Your task to perform on an android device: toggle javascript in the chrome app Image 0: 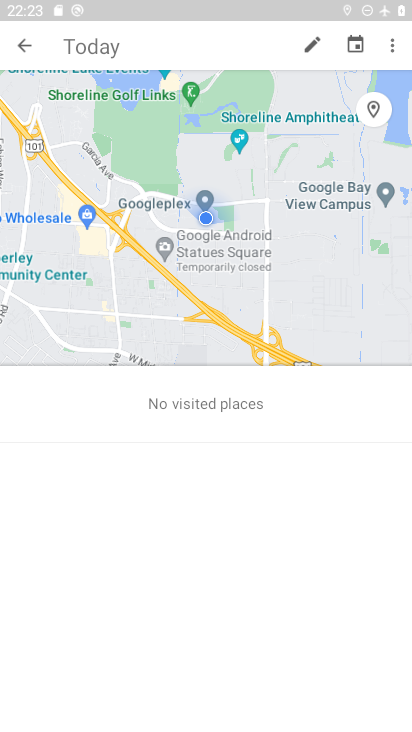
Step 0: press home button
Your task to perform on an android device: toggle javascript in the chrome app Image 1: 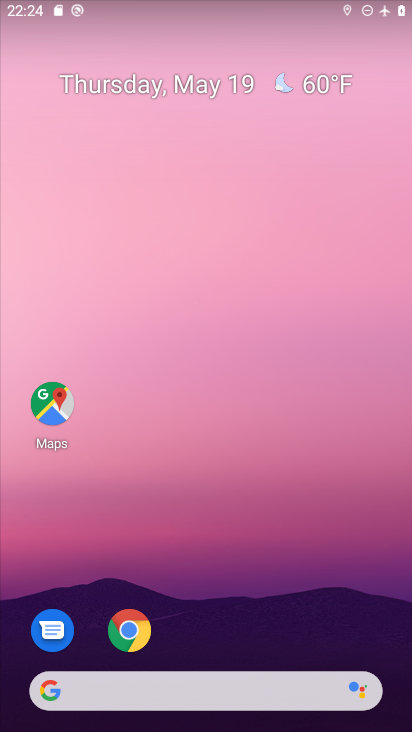
Step 1: click (136, 625)
Your task to perform on an android device: toggle javascript in the chrome app Image 2: 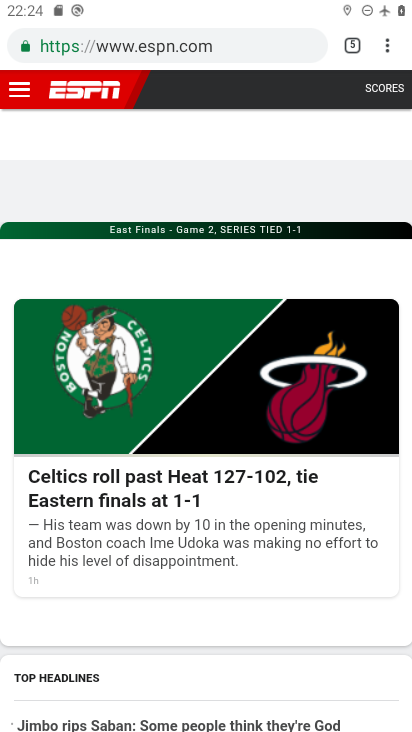
Step 2: click (388, 40)
Your task to perform on an android device: toggle javascript in the chrome app Image 3: 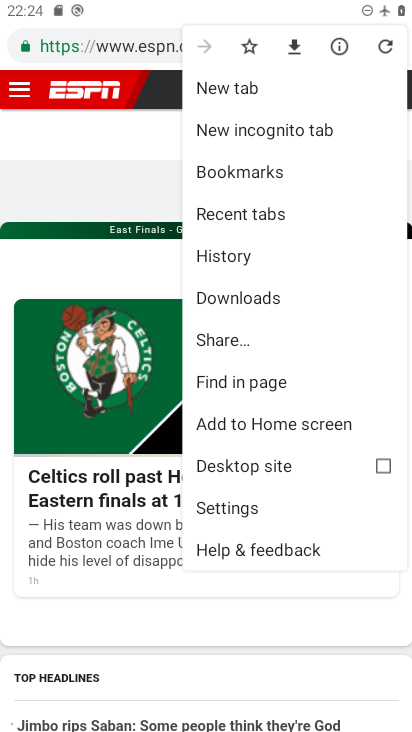
Step 3: click (233, 505)
Your task to perform on an android device: toggle javascript in the chrome app Image 4: 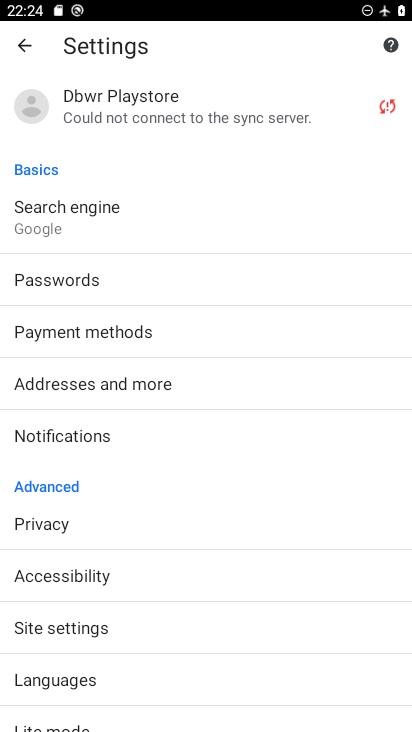
Step 4: drag from (233, 481) to (233, 110)
Your task to perform on an android device: toggle javascript in the chrome app Image 5: 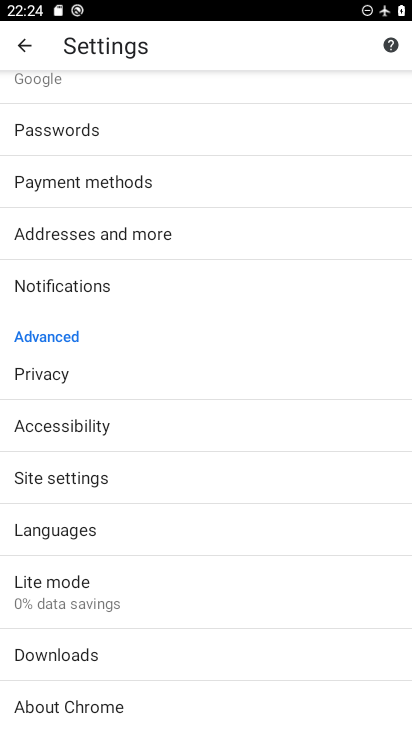
Step 5: click (88, 477)
Your task to perform on an android device: toggle javascript in the chrome app Image 6: 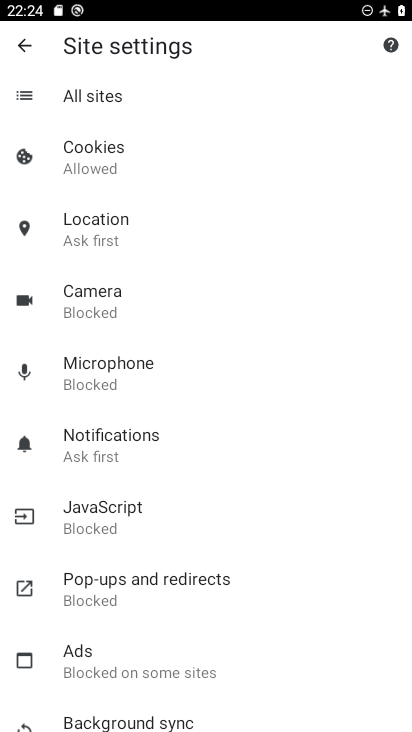
Step 6: click (110, 508)
Your task to perform on an android device: toggle javascript in the chrome app Image 7: 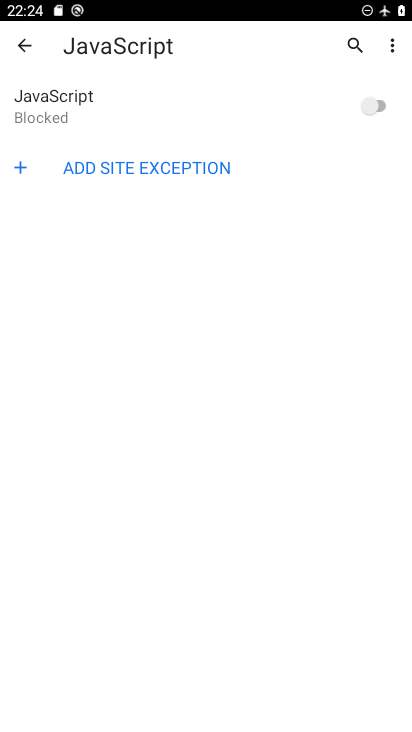
Step 7: click (372, 107)
Your task to perform on an android device: toggle javascript in the chrome app Image 8: 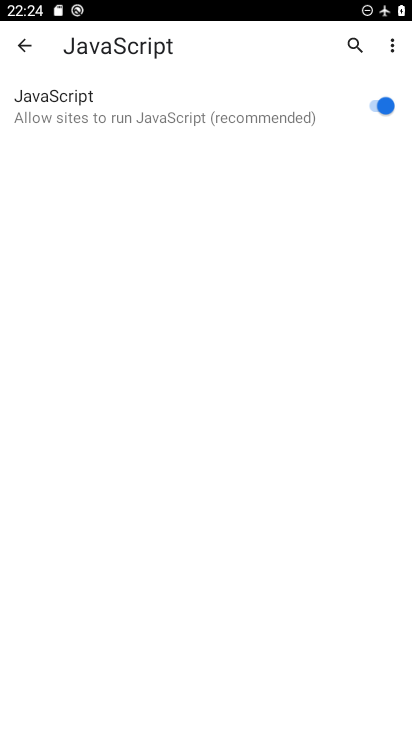
Step 8: task complete